Your task to perform on an android device: snooze an email in the gmail app Image 0: 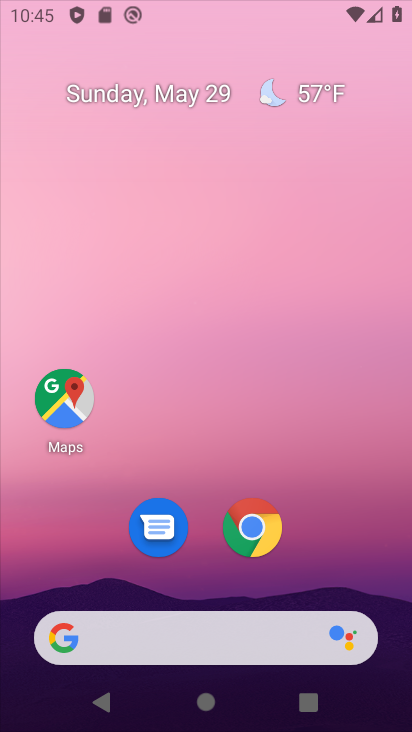
Step 0: press home button
Your task to perform on an android device: snooze an email in the gmail app Image 1: 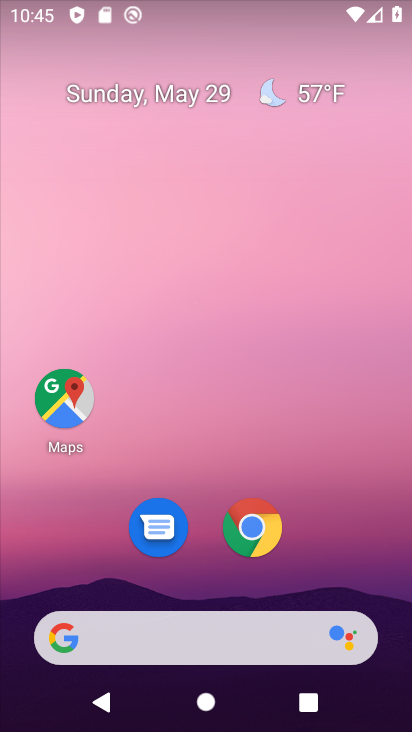
Step 1: drag from (347, 586) to (214, 137)
Your task to perform on an android device: snooze an email in the gmail app Image 2: 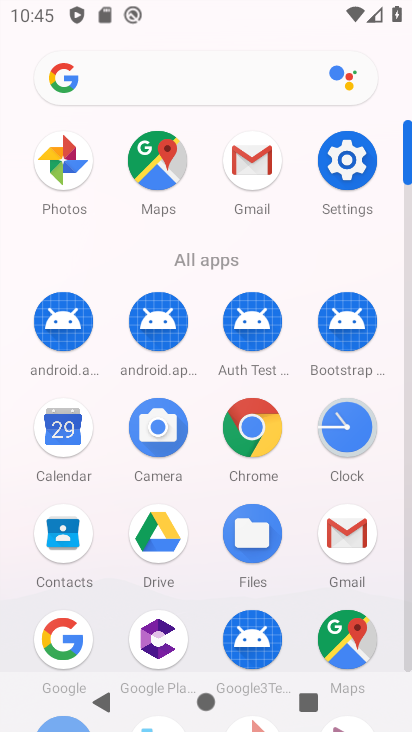
Step 2: click (250, 162)
Your task to perform on an android device: snooze an email in the gmail app Image 3: 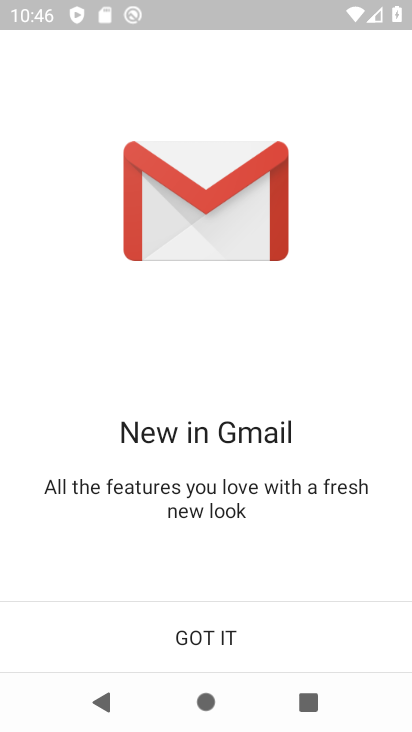
Step 3: click (185, 634)
Your task to perform on an android device: snooze an email in the gmail app Image 4: 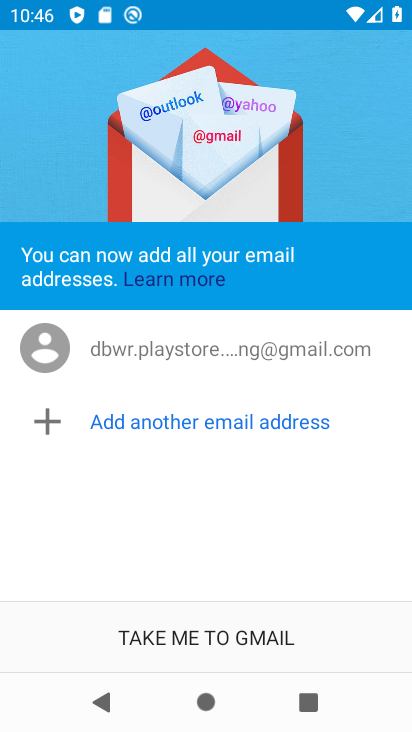
Step 4: click (185, 634)
Your task to perform on an android device: snooze an email in the gmail app Image 5: 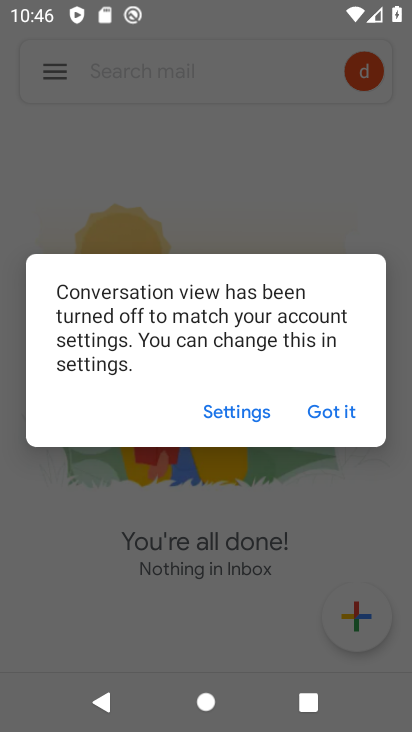
Step 5: click (335, 408)
Your task to perform on an android device: snooze an email in the gmail app Image 6: 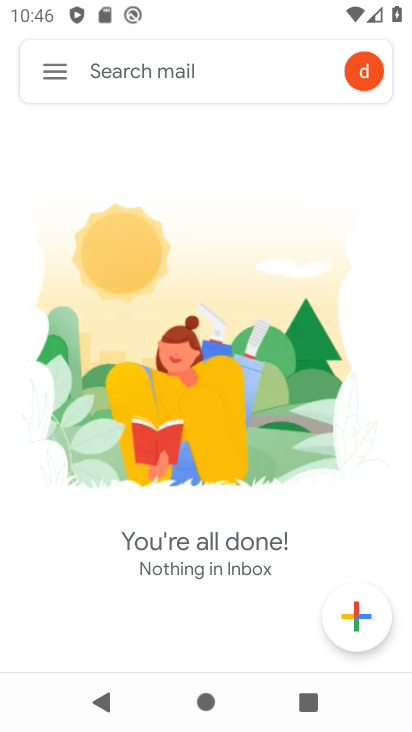
Step 6: click (57, 72)
Your task to perform on an android device: snooze an email in the gmail app Image 7: 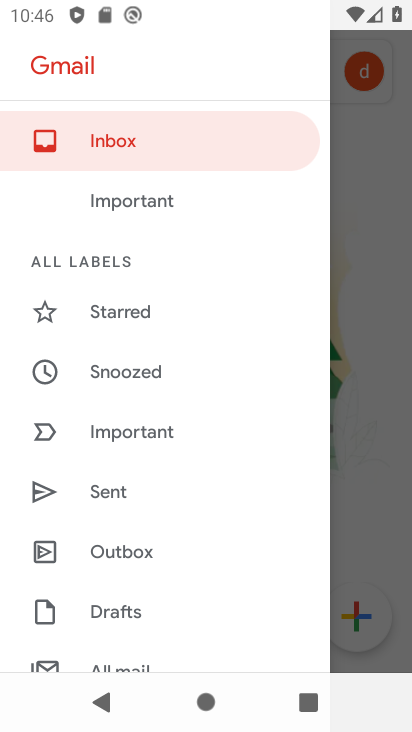
Step 7: drag from (112, 347) to (201, 225)
Your task to perform on an android device: snooze an email in the gmail app Image 8: 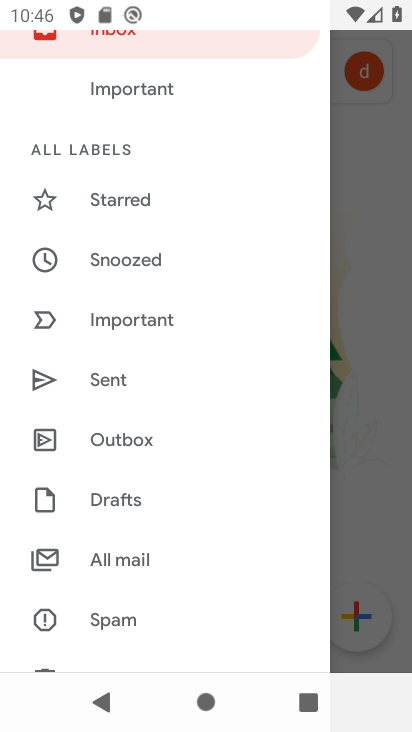
Step 8: drag from (116, 352) to (198, 248)
Your task to perform on an android device: snooze an email in the gmail app Image 9: 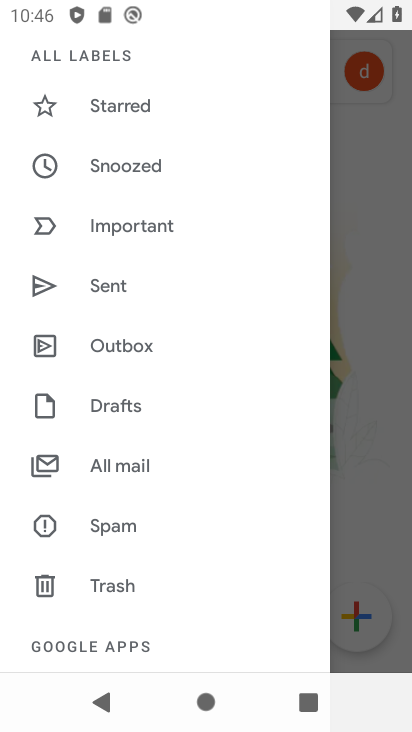
Step 9: drag from (110, 318) to (187, 220)
Your task to perform on an android device: snooze an email in the gmail app Image 10: 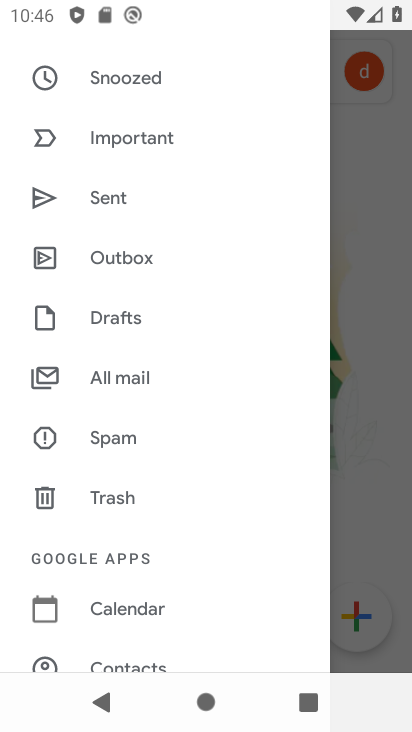
Step 10: drag from (103, 406) to (194, 297)
Your task to perform on an android device: snooze an email in the gmail app Image 11: 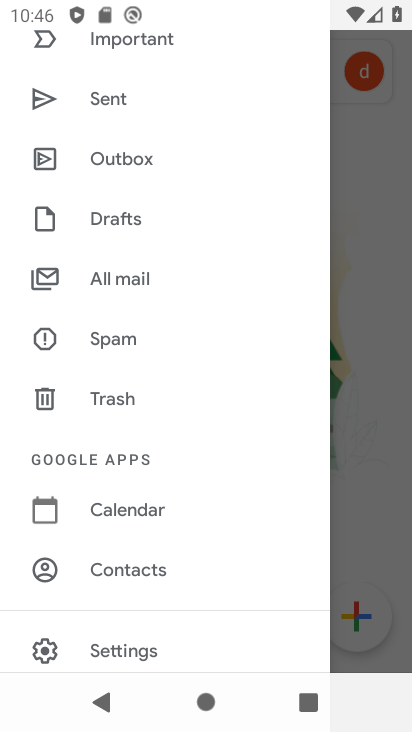
Step 11: drag from (190, 341) to (194, 388)
Your task to perform on an android device: snooze an email in the gmail app Image 12: 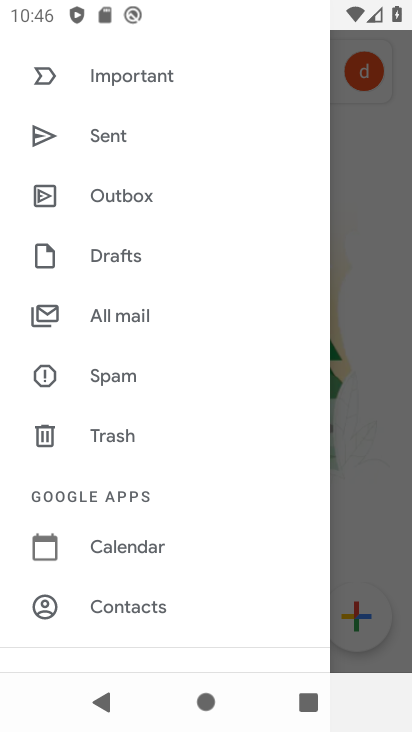
Step 12: click (118, 314)
Your task to perform on an android device: snooze an email in the gmail app Image 13: 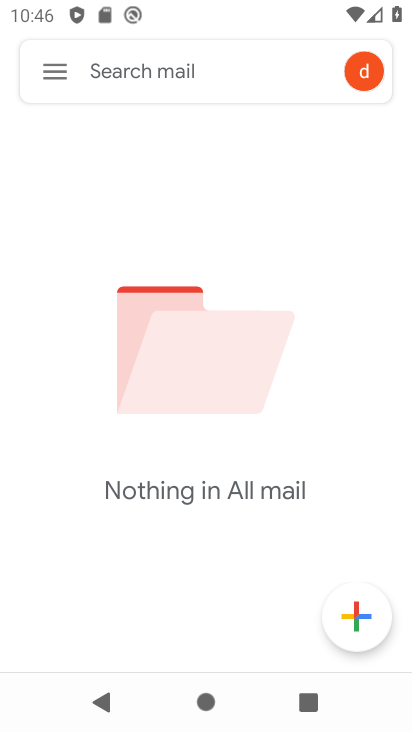
Step 13: click (54, 75)
Your task to perform on an android device: snooze an email in the gmail app Image 14: 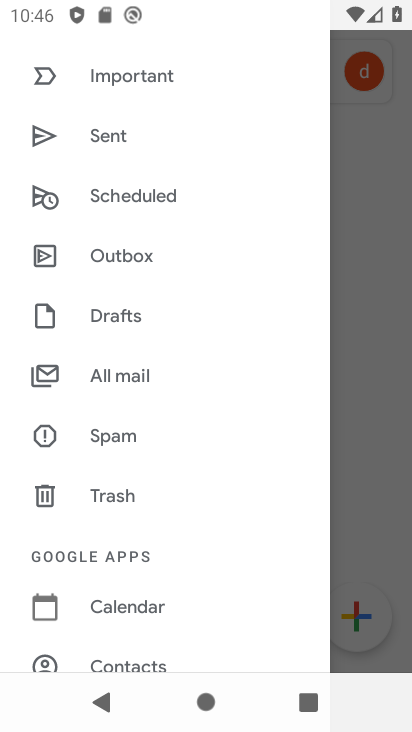
Step 14: drag from (117, 315) to (138, 408)
Your task to perform on an android device: snooze an email in the gmail app Image 15: 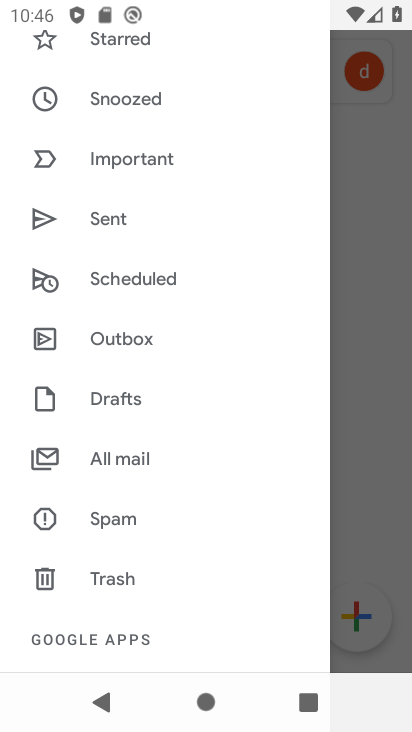
Step 15: drag from (151, 222) to (166, 343)
Your task to perform on an android device: snooze an email in the gmail app Image 16: 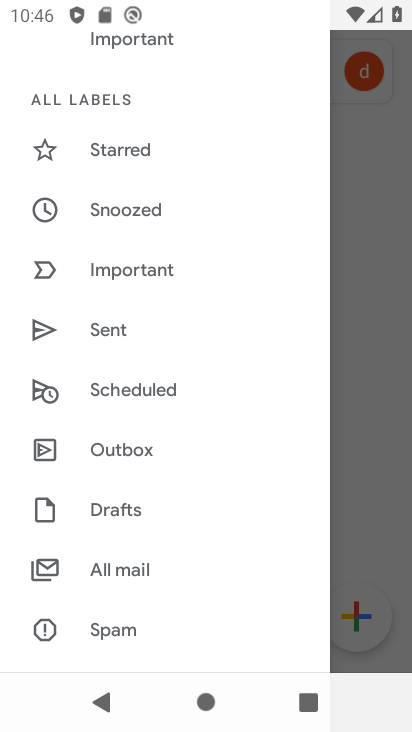
Step 16: click (132, 211)
Your task to perform on an android device: snooze an email in the gmail app Image 17: 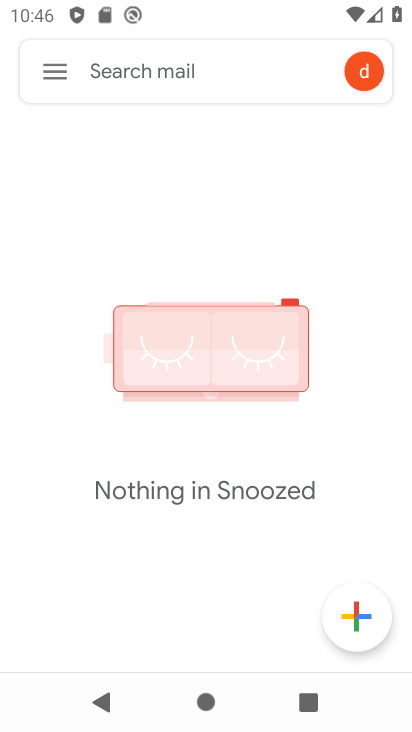
Step 17: click (65, 82)
Your task to perform on an android device: snooze an email in the gmail app Image 18: 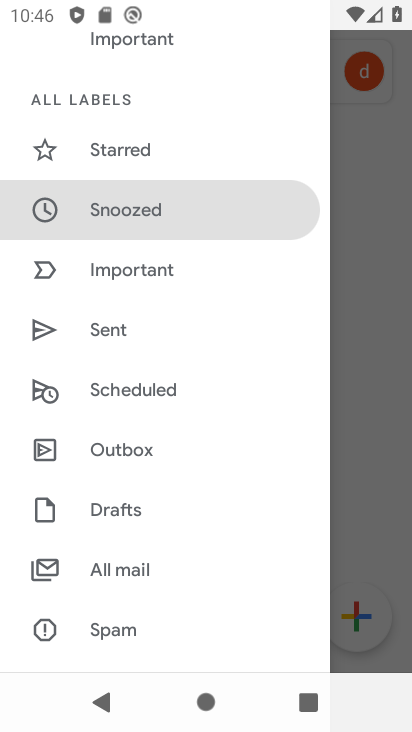
Step 18: task complete